Your task to perform on an android device: turn on sleep mode Image 0: 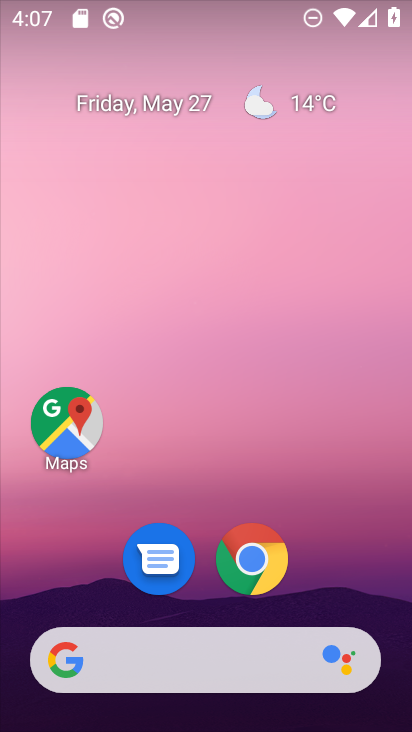
Step 0: drag from (215, 663) to (251, 1)
Your task to perform on an android device: turn on sleep mode Image 1: 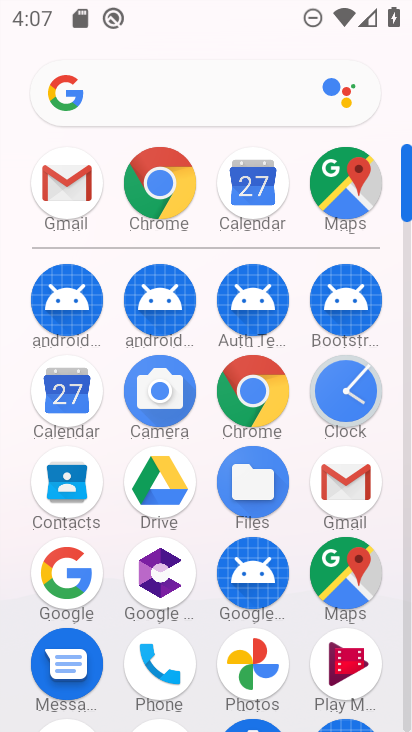
Step 1: drag from (294, 622) to (298, 204)
Your task to perform on an android device: turn on sleep mode Image 2: 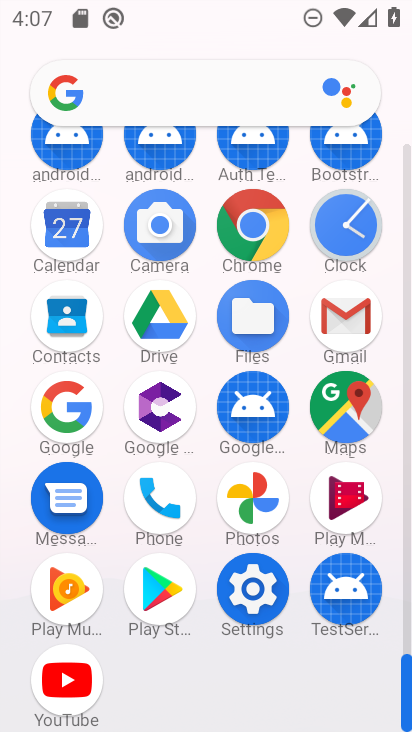
Step 2: click (259, 594)
Your task to perform on an android device: turn on sleep mode Image 3: 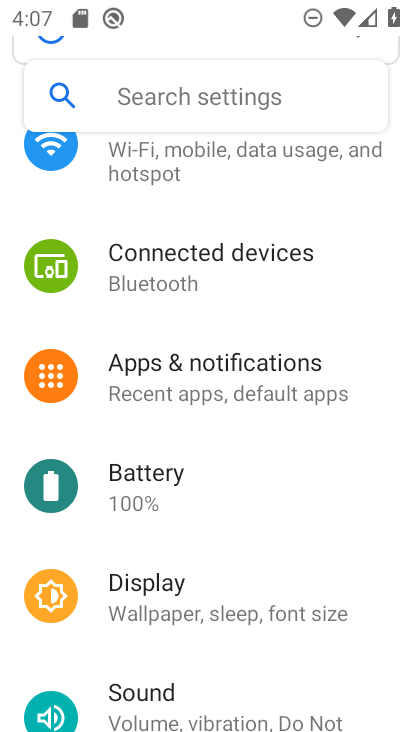
Step 3: click (263, 590)
Your task to perform on an android device: turn on sleep mode Image 4: 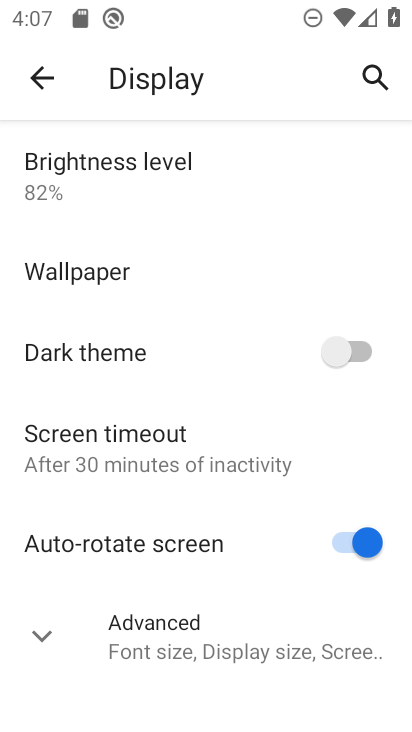
Step 4: task complete